Your task to perform on an android device: Do I have any events this weekend? Image 0: 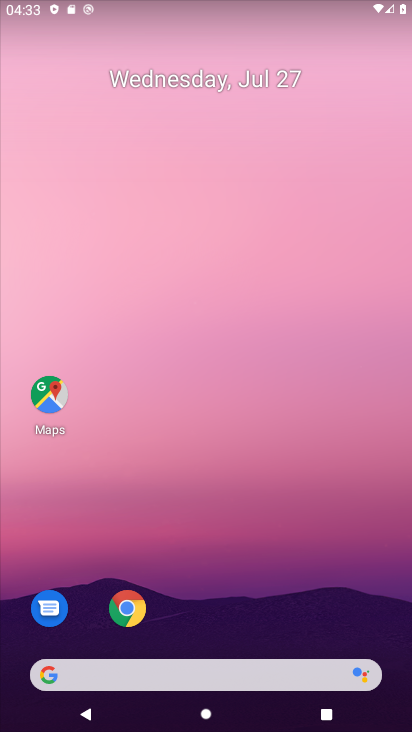
Step 0: drag from (260, 669) to (164, 15)
Your task to perform on an android device: Do I have any events this weekend? Image 1: 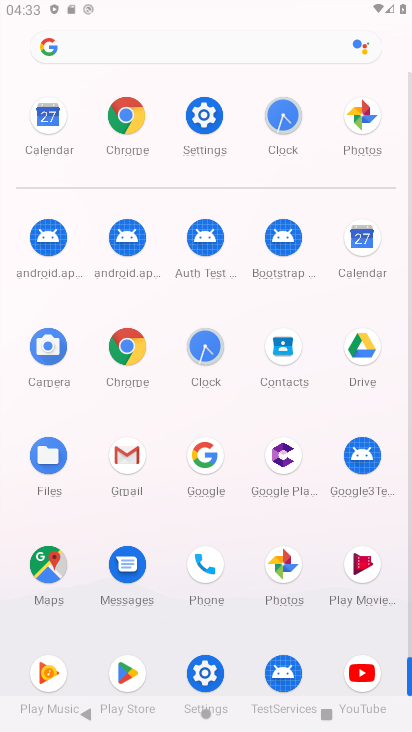
Step 1: drag from (194, 307) to (132, 29)
Your task to perform on an android device: Do I have any events this weekend? Image 2: 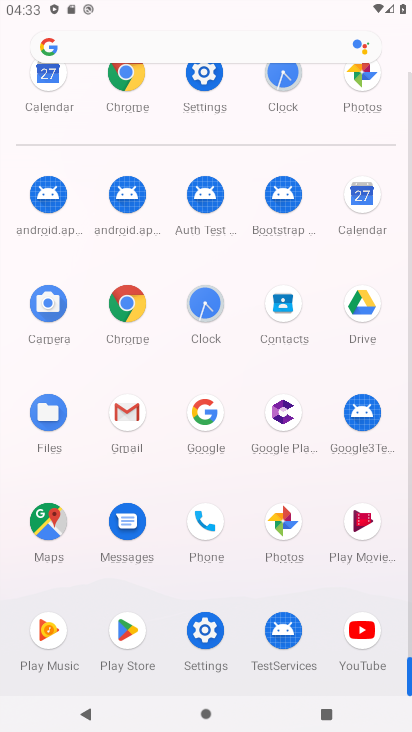
Step 2: click (356, 200)
Your task to perform on an android device: Do I have any events this weekend? Image 3: 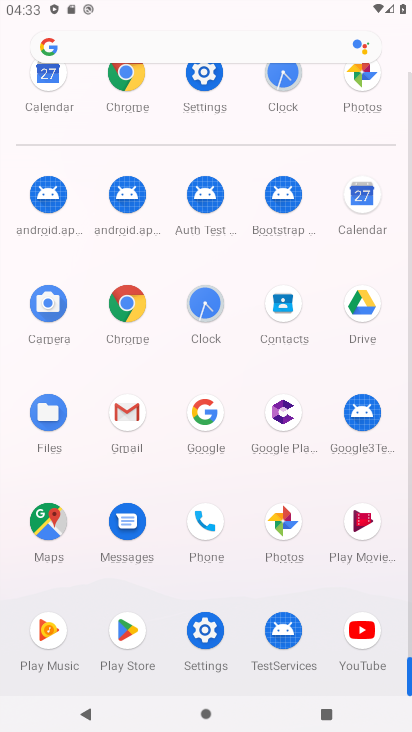
Step 3: click (357, 197)
Your task to perform on an android device: Do I have any events this weekend? Image 4: 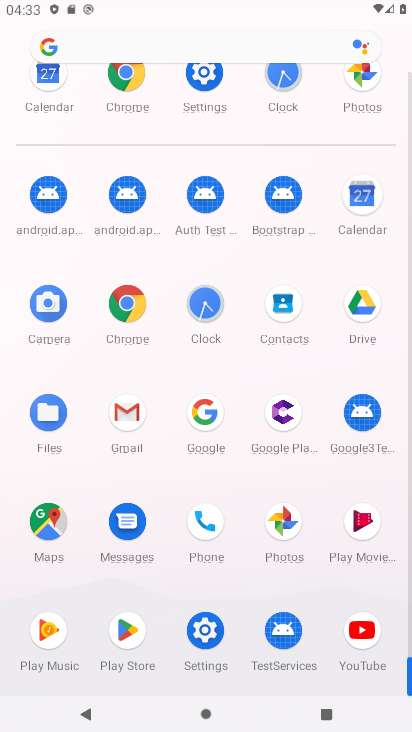
Step 4: click (357, 197)
Your task to perform on an android device: Do I have any events this weekend? Image 5: 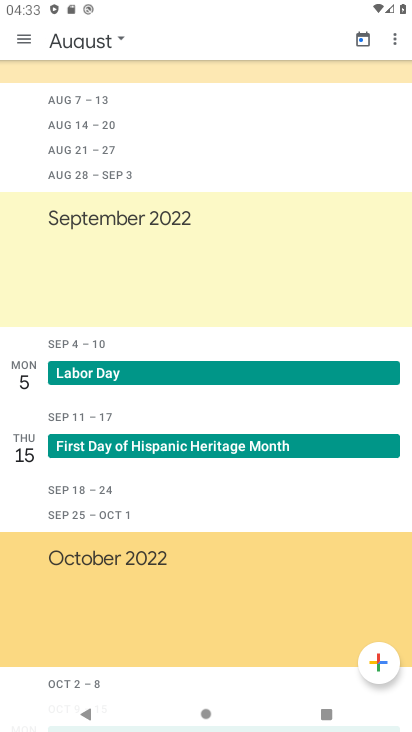
Step 5: click (117, 32)
Your task to perform on an android device: Do I have any events this weekend? Image 6: 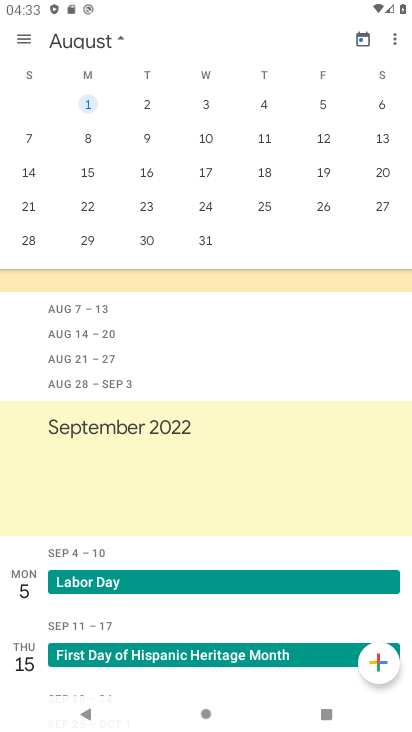
Step 6: drag from (48, 183) to (409, 254)
Your task to perform on an android device: Do I have any events this weekend? Image 7: 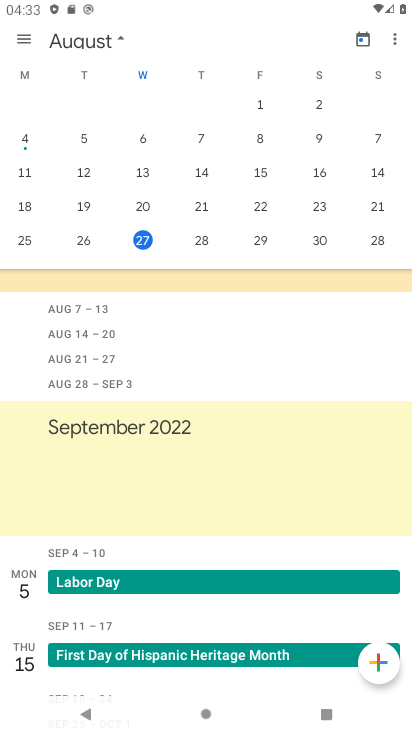
Step 7: drag from (74, 151) to (372, 206)
Your task to perform on an android device: Do I have any events this weekend? Image 8: 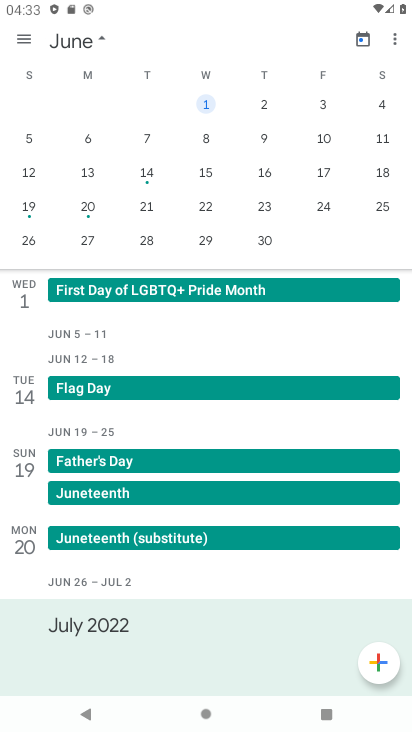
Step 8: click (205, 233)
Your task to perform on an android device: Do I have any events this weekend? Image 9: 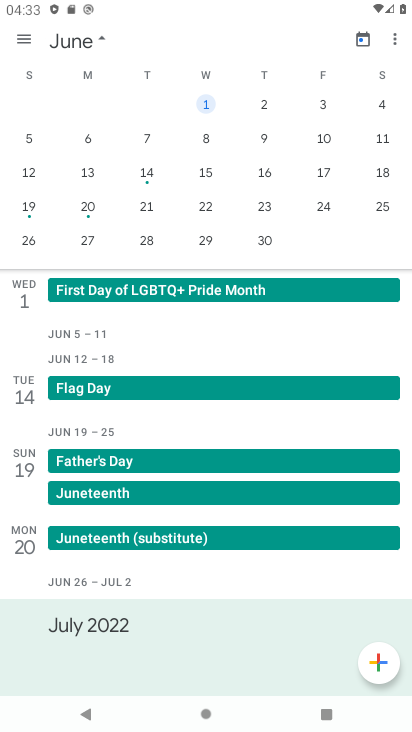
Step 9: click (206, 233)
Your task to perform on an android device: Do I have any events this weekend? Image 10: 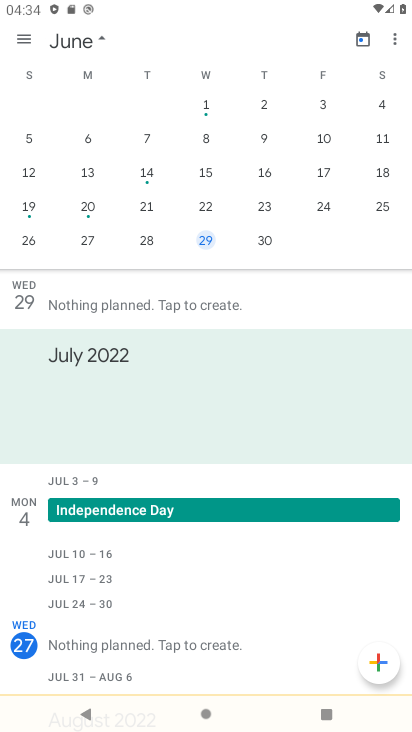
Step 10: task complete